Your task to perform on an android device: snooze an email in the gmail app Image 0: 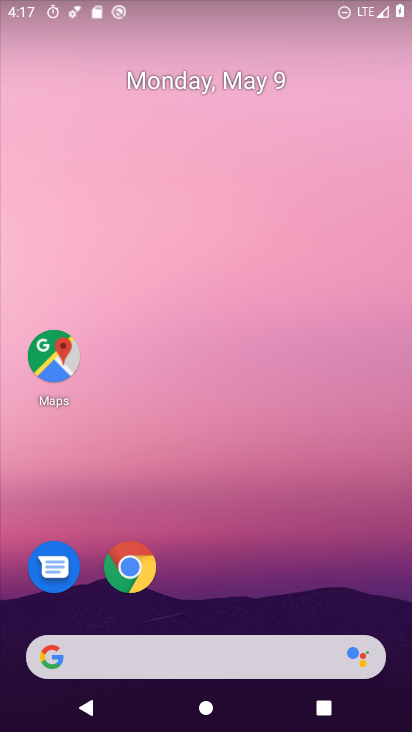
Step 0: drag from (260, 586) to (251, 76)
Your task to perform on an android device: snooze an email in the gmail app Image 1: 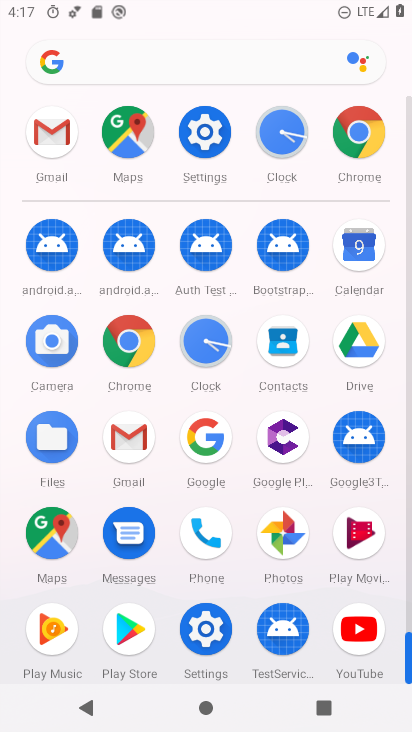
Step 1: click (48, 144)
Your task to perform on an android device: snooze an email in the gmail app Image 2: 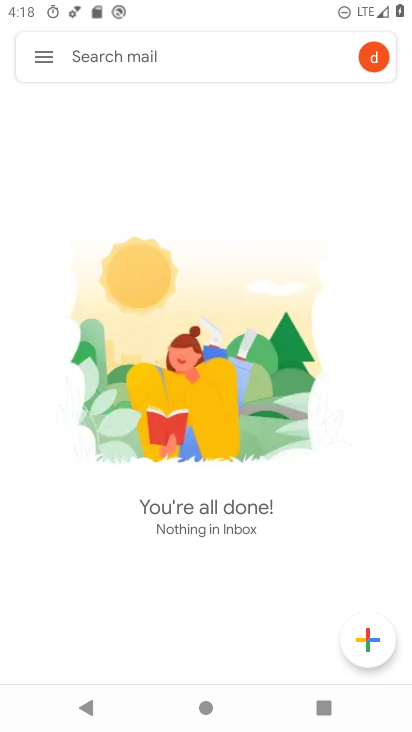
Step 2: click (45, 52)
Your task to perform on an android device: snooze an email in the gmail app Image 3: 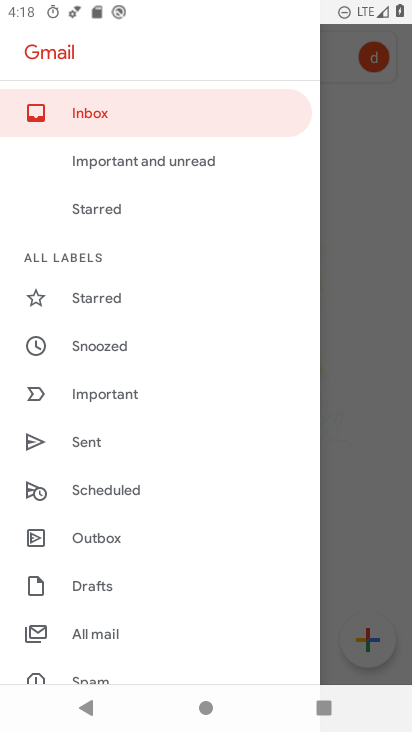
Step 3: click (112, 628)
Your task to perform on an android device: snooze an email in the gmail app Image 4: 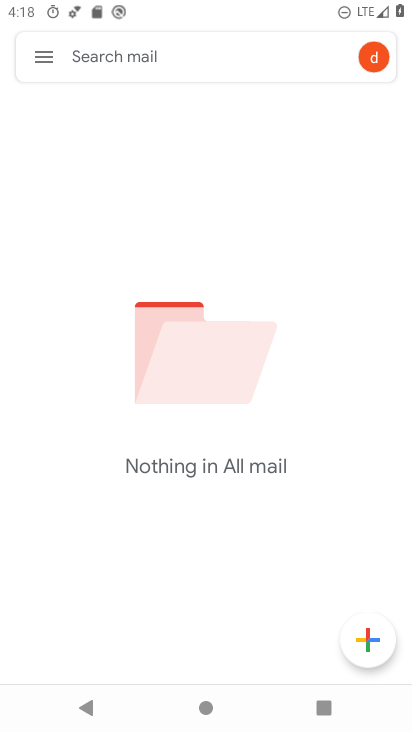
Step 4: task complete